Your task to perform on an android device: change keyboard looks Image 0: 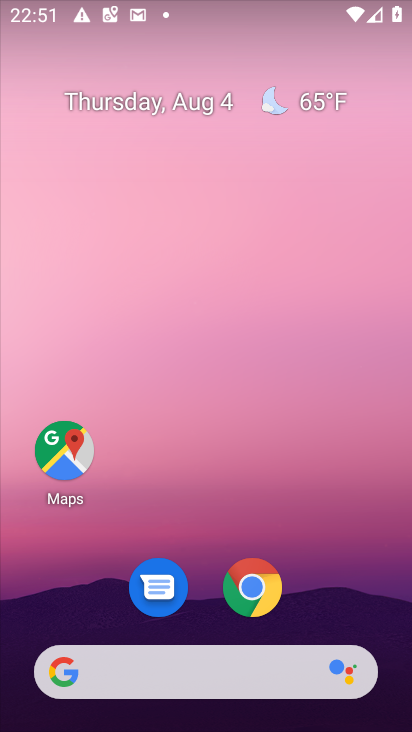
Step 0: drag from (186, 649) to (200, 78)
Your task to perform on an android device: change keyboard looks Image 1: 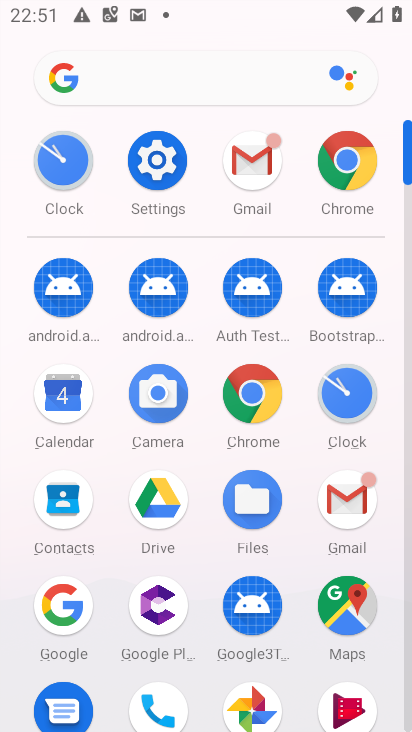
Step 1: click (153, 151)
Your task to perform on an android device: change keyboard looks Image 2: 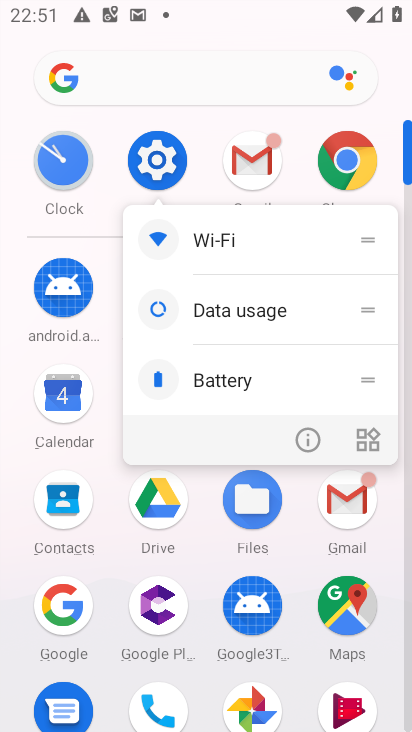
Step 2: click (153, 151)
Your task to perform on an android device: change keyboard looks Image 3: 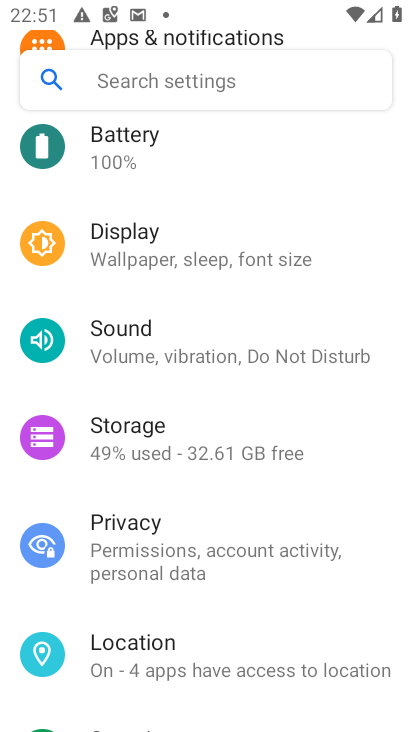
Step 3: drag from (247, 167) to (267, 79)
Your task to perform on an android device: change keyboard looks Image 4: 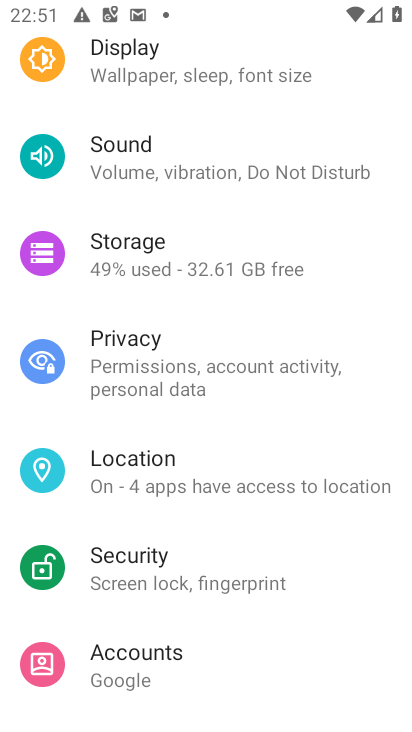
Step 4: drag from (174, 643) to (264, 281)
Your task to perform on an android device: change keyboard looks Image 5: 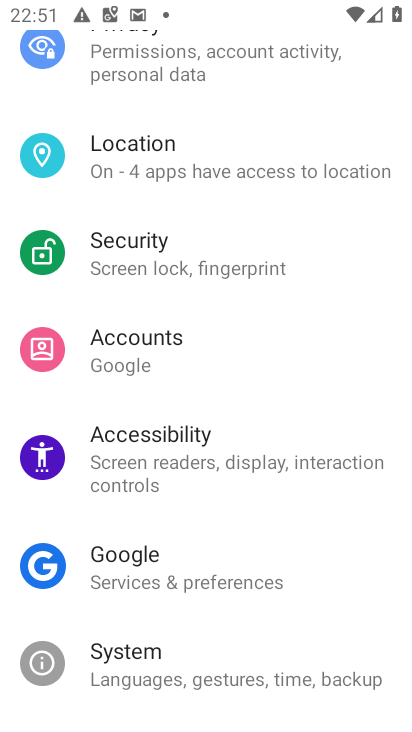
Step 5: click (178, 679)
Your task to perform on an android device: change keyboard looks Image 6: 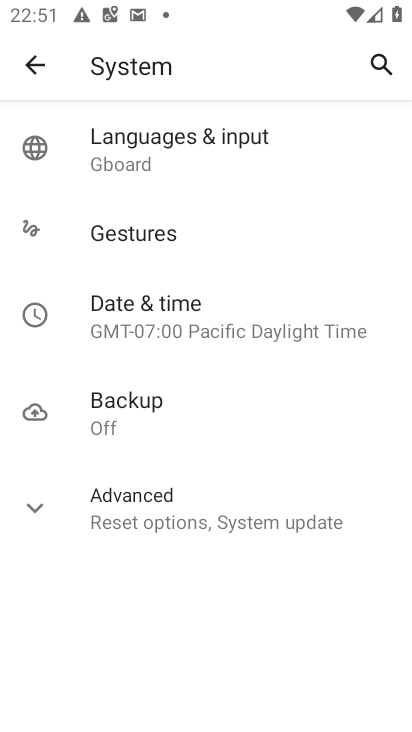
Step 6: click (136, 155)
Your task to perform on an android device: change keyboard looks Image 7: 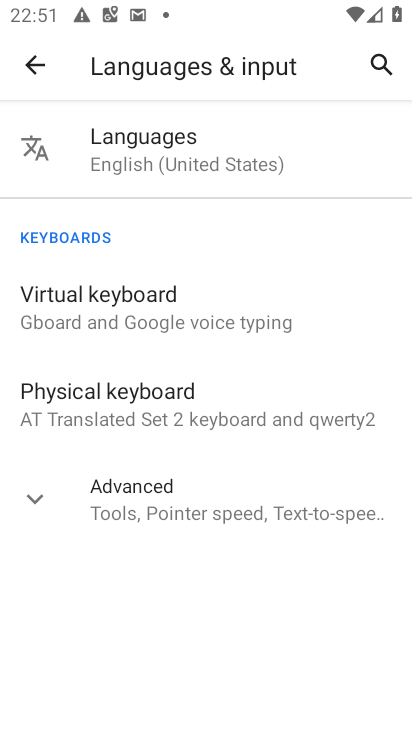
Step 7: click (107, 144)
Your task to perform on an android device: change keyboard looks Image 8: 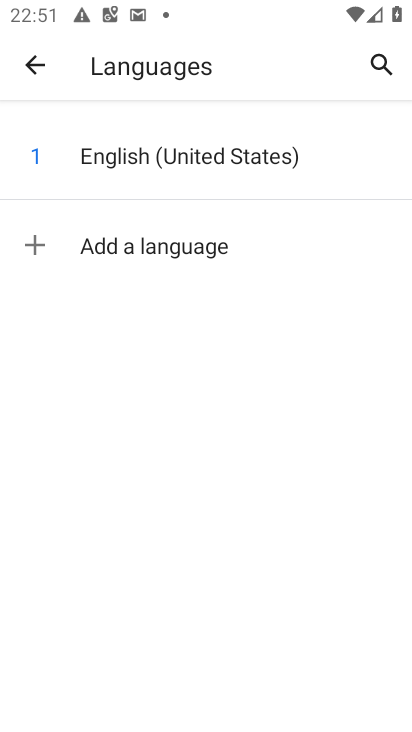
Step 8: click (40, 80)
Your task to perform on an android device: change keyboard looks Image 9: 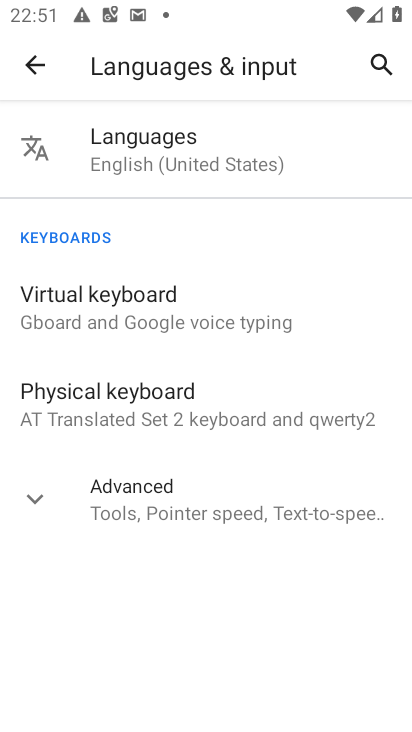
Step 9: click (137, 315)
Your task to perform on an android device: change keyboard looks Image 10: 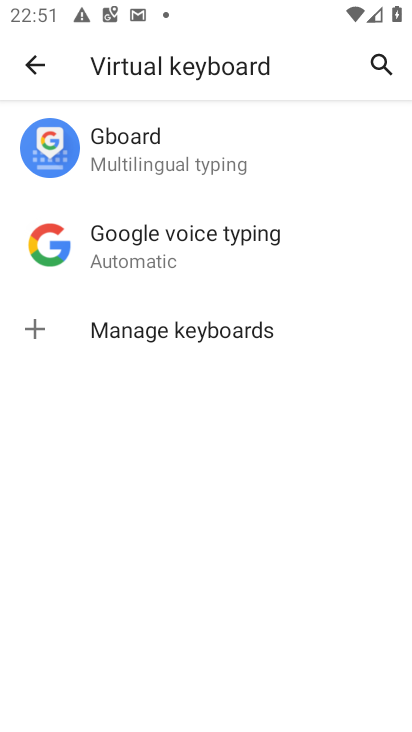
Step 10: click (145, 148)
Your task to perform on an android device: change keyboard looks Image 11: 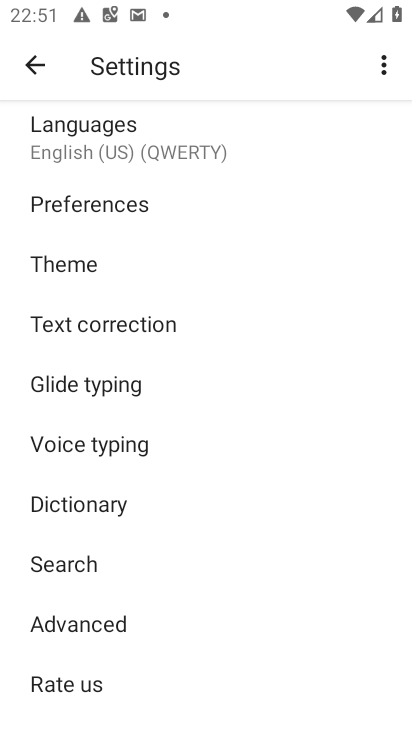
Step 11: click (105, 267)
Your task to perform on an android device: change keyboard looks Image 12: 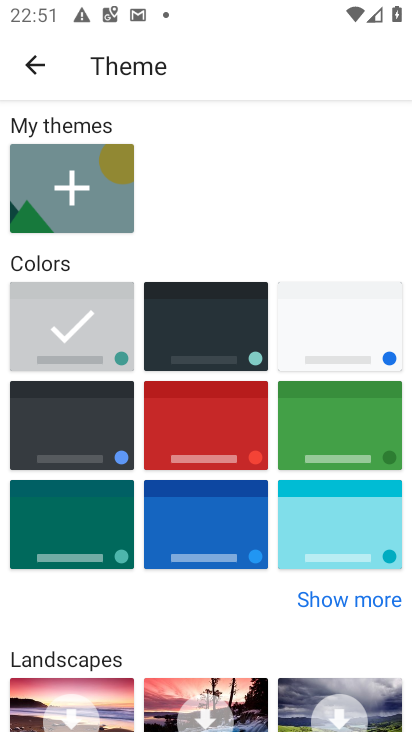
Step 12: click (345, 433)
Your task to perform on an android device: change keyboard looks Image 13: 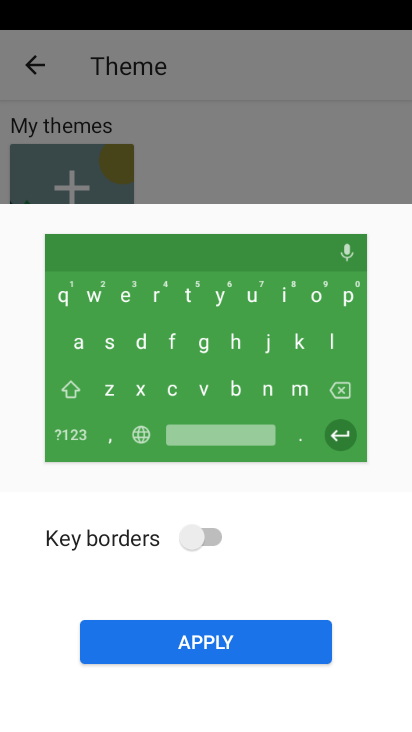
Step 13: click (243, 634)
Your task to perform on an android device: change keyboard looks Image 14: 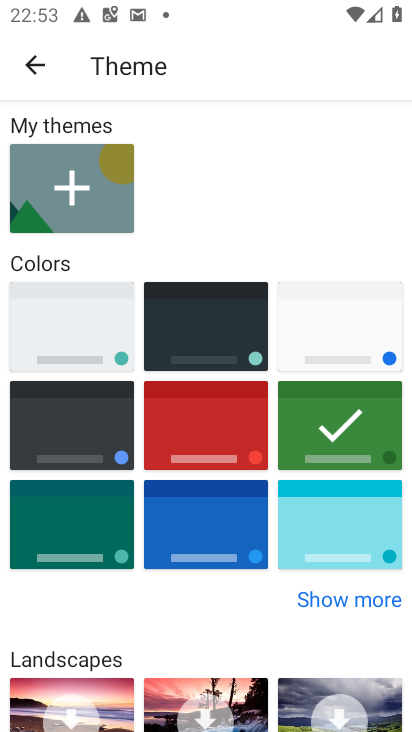
Step 14: task complete